Your task to perform on an android device: Play the last video I watched on Youtube Image 0: 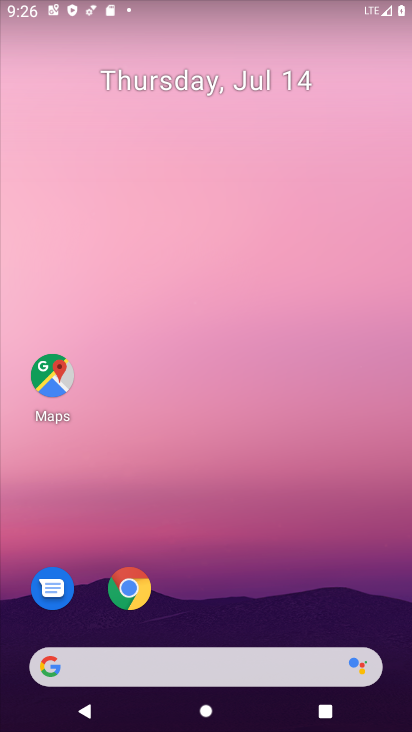
Step 0: drag from (361, 606) to (245, 68)
Your task to perform on an android device: Play the last video I watched on Youtube Image 1: 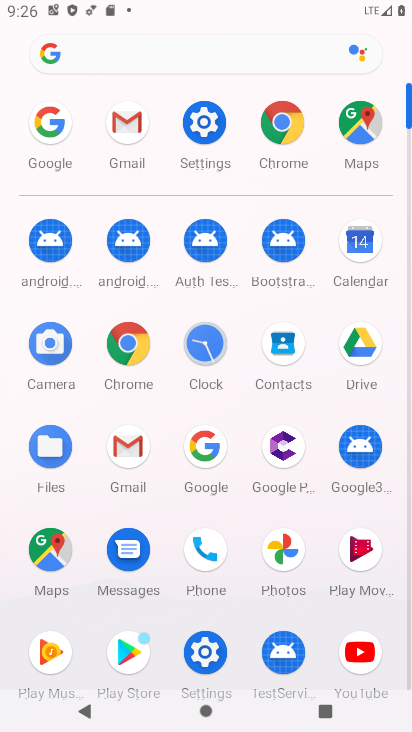
Step 1: click (350, 643)
Your task to perform on an android device: Play the last video I watched on Youtube Image 2: 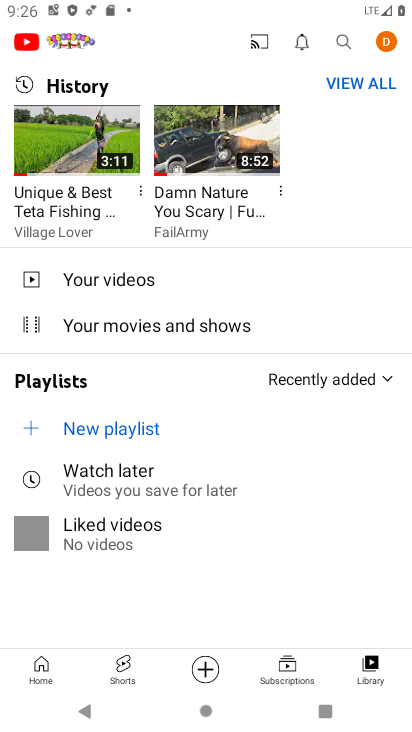
Step 2: click (18, 166)
Your task to perform on an android device: Play the last video I watched on Youtube Image 3: 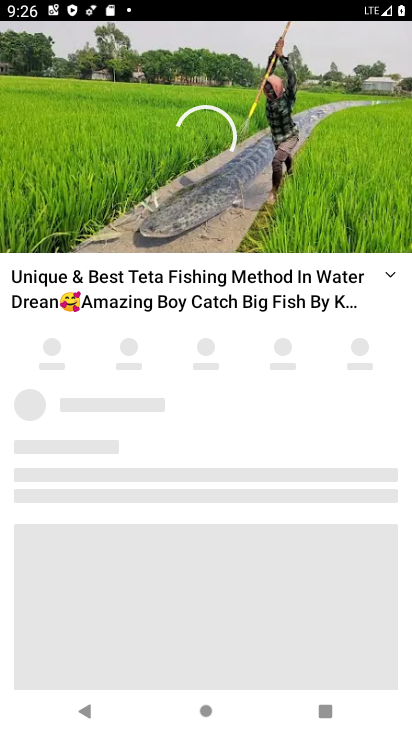
Step 3: click (187, 98)
Your task to perform on an android device: Play the last video I watched on Youtube Image 4: 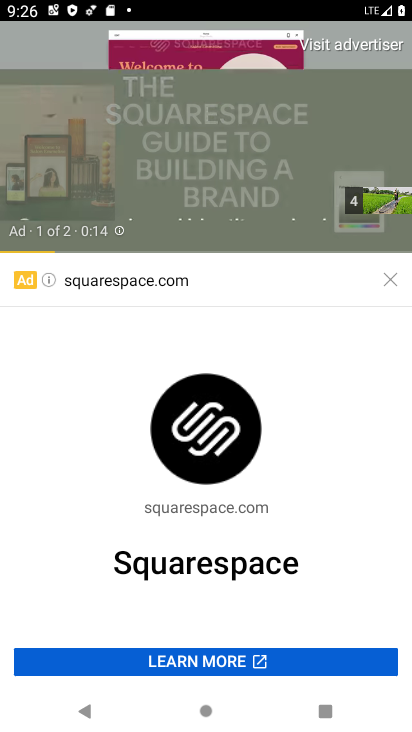
Step 4: click (209, 141)
Your task to perform on an android device: Play the last video I watched on Youtube Image 5: 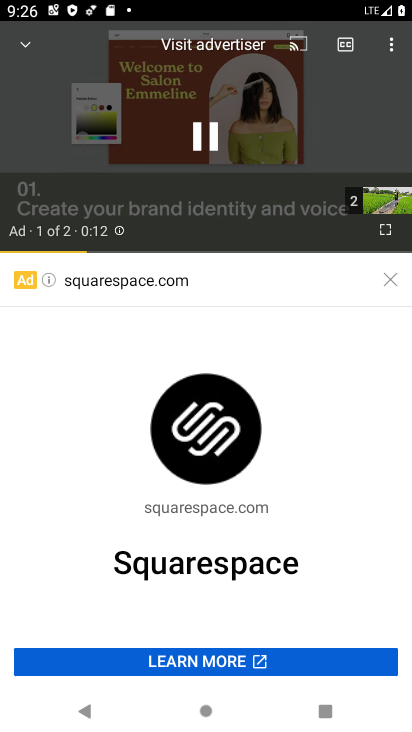
Step 5: click (209, 141)
Your task to perform on an android device: Play the last video I watched on Youtube Image 6: 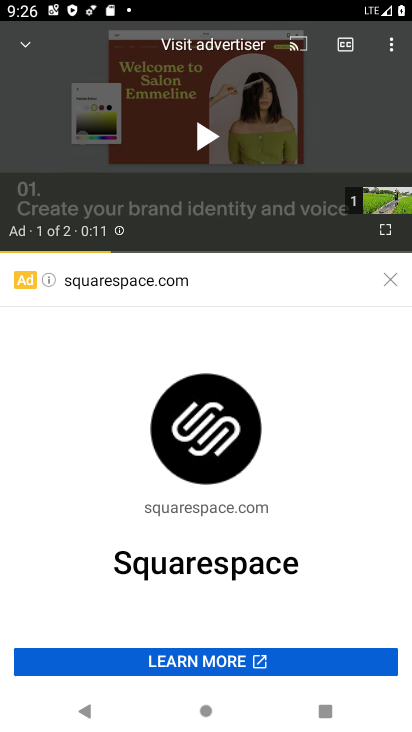
Step 6: task complete